Your task to perform on an android device: find photos in the google photos app Image 0: 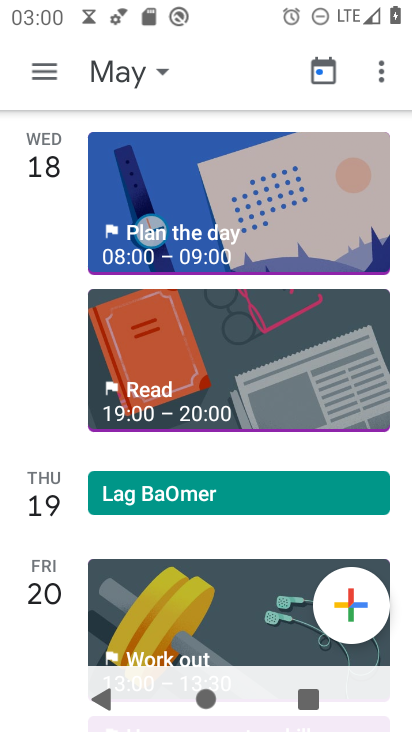
Step 0: press home button
Your task to perform on an android device: find photos in the google photos app Image 1: 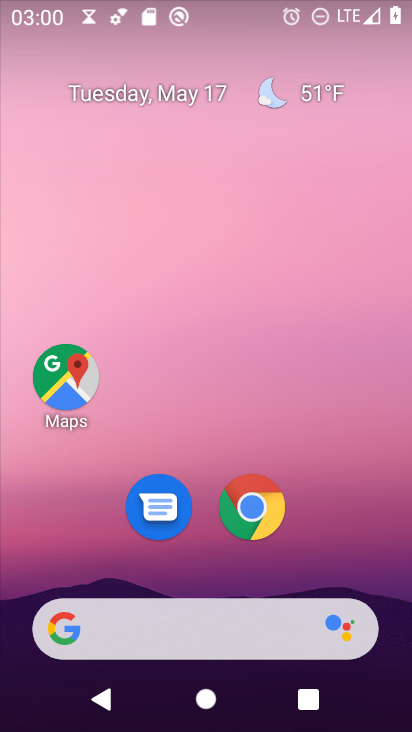
Step 1: drag from (310, 571) to (270, 48)
Your task to perform on an android device: find photos in the google photos app Image 2: 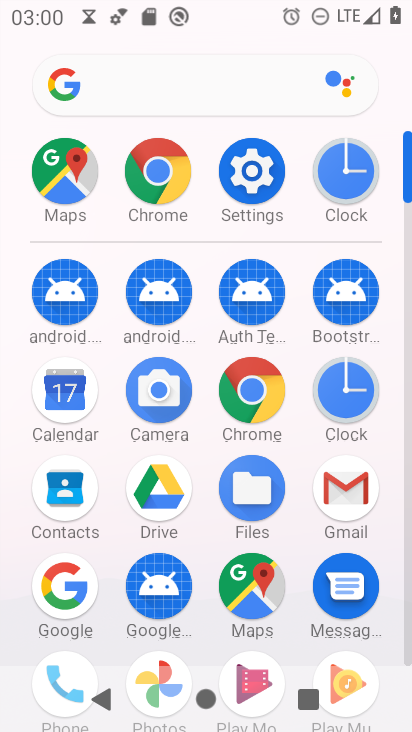
Step 2: drag from (192, 536) to (241, 225)
Your task to perform on an android device: find photos in the google photos app Image 3: 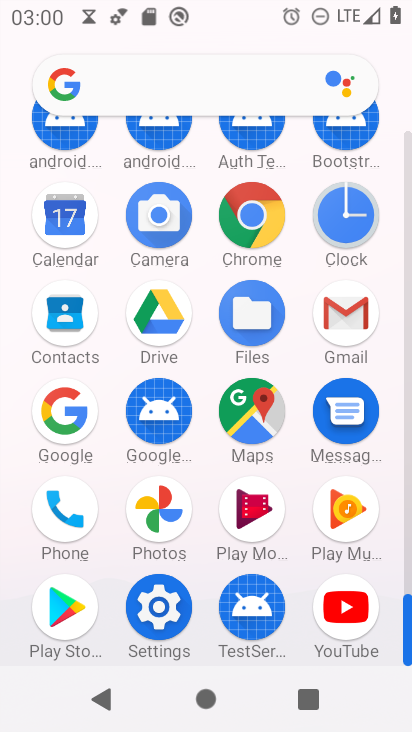
Step 3: click (164, 512)
Your task to perform on an android device: find photos in the google photos app Image 4: 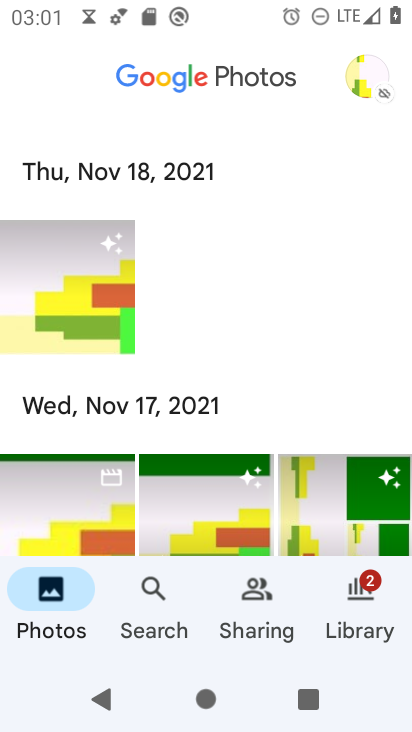
Step 4: task complete